Your task to perform on an android device: Show me popular videos on Youtube Image 0: 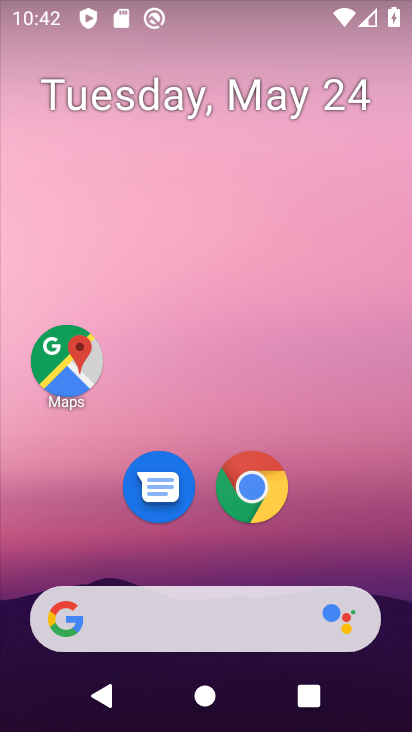
Step 0: drag from (226, 563) to (238, 17)
Your task to perform on an android device: Show me popular videos on Youtube Image 1: 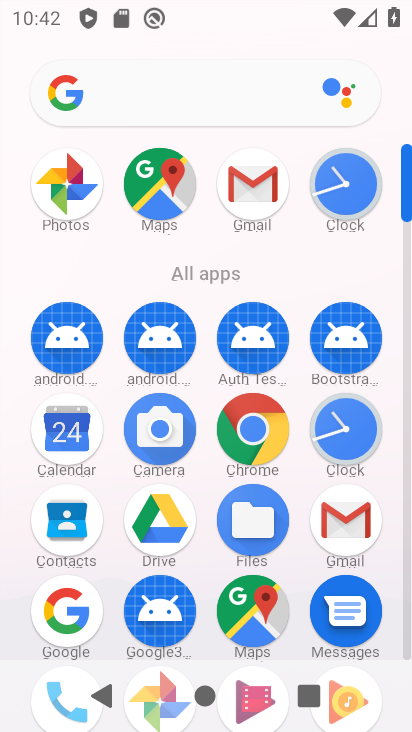
Step 1: drag from (217, 608) to (282, 109)
Your task to perform on an android device: Show me popular videos on Youtube Image 2: 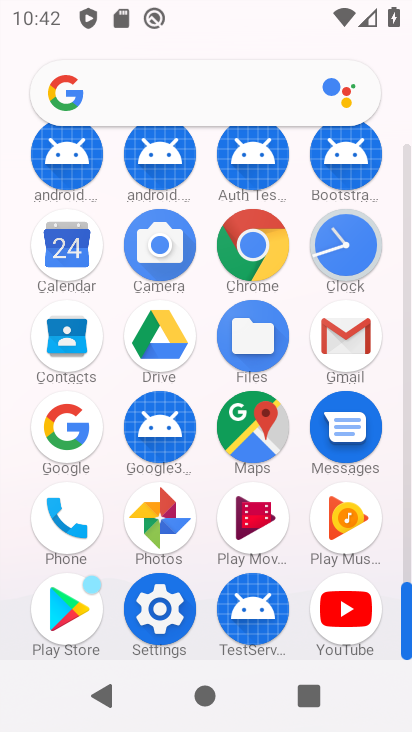
Step 2: click (340, 608)
Your task to perform on an android device: Show me popular videos on Youtube Image 3: 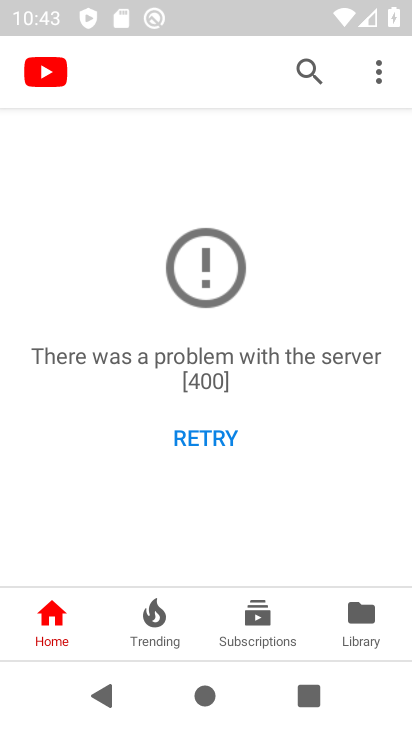
Step 3: task complete